Your task to perform on an android device: turn notification dots on Image 0: 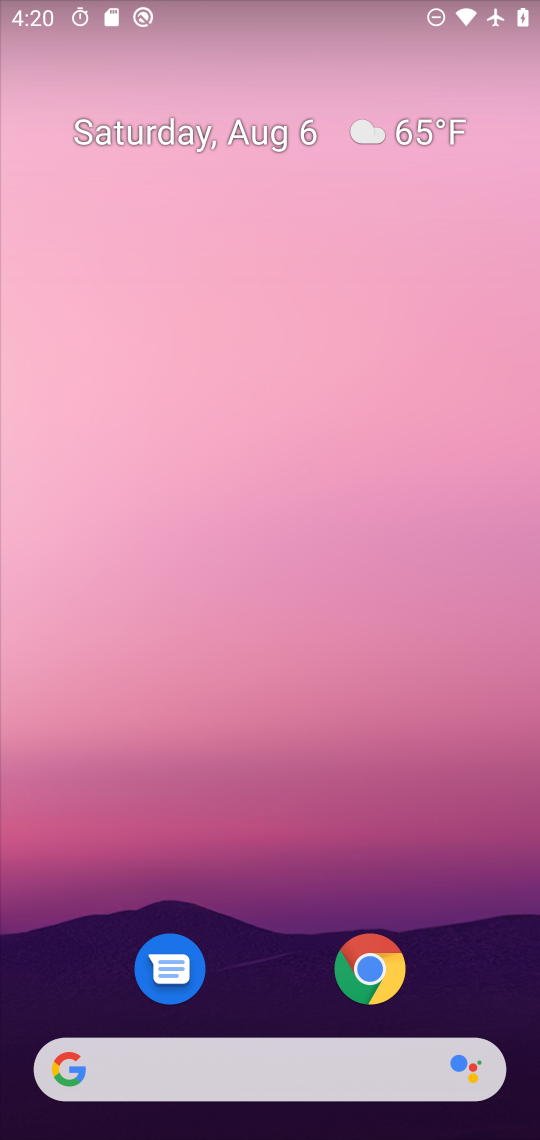
Step 0: press home button
Your task to perform on an android device: turn notification dots on Image 1: 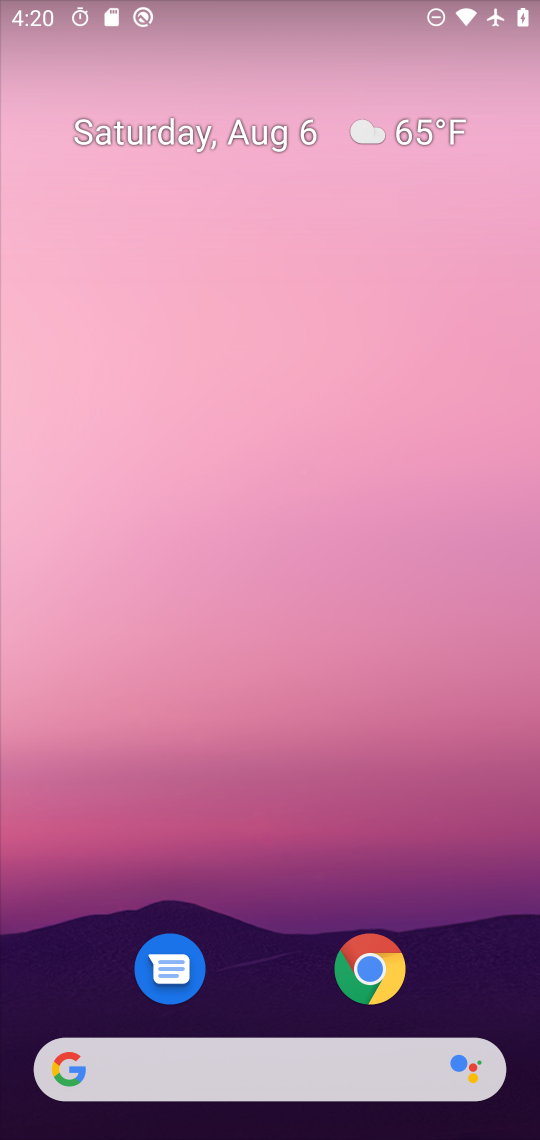
Step 1: drag from (449, 457) to (459, 67)
Your task to perform on an android device: turn notification dots on Image 2: 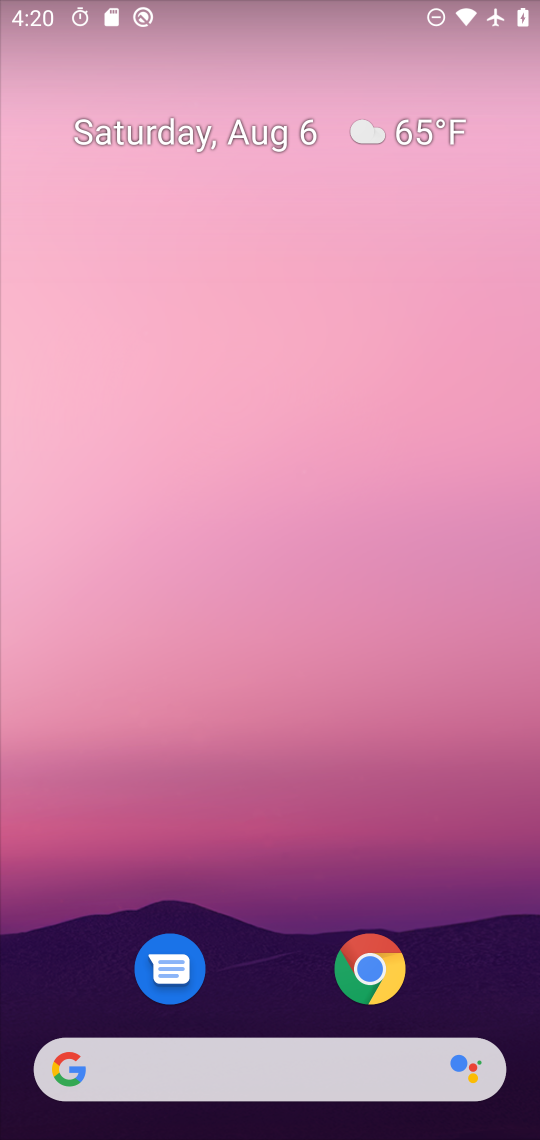
Step 2: drag from (275, 916) to (289, 57)
Your task to perform on an android device: turn notification dots on Image 3: 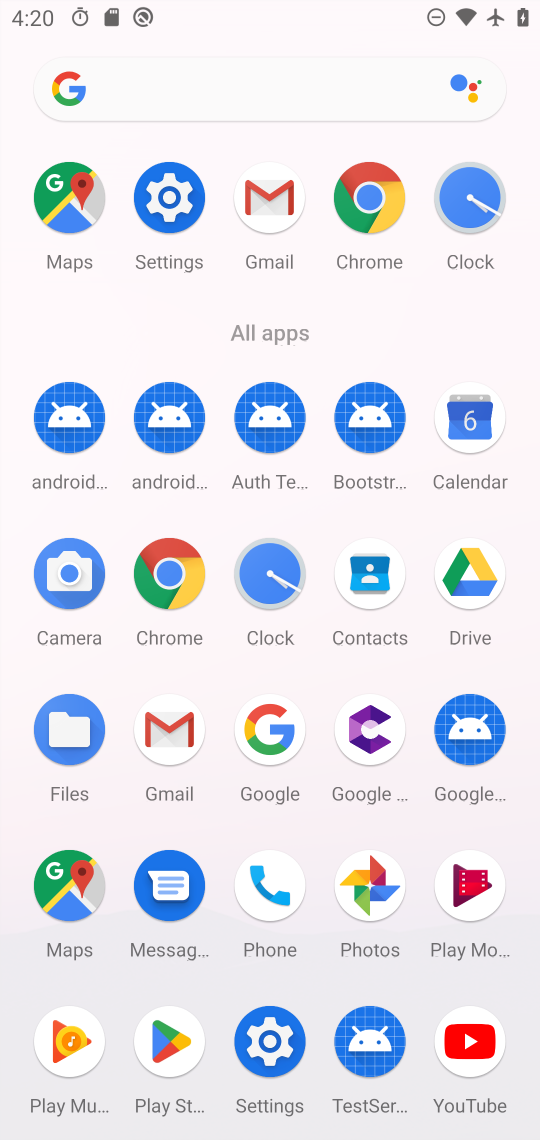
Step 3: click (168, 210)
Your task to perform on an android device: turn notification dots on Image 4: 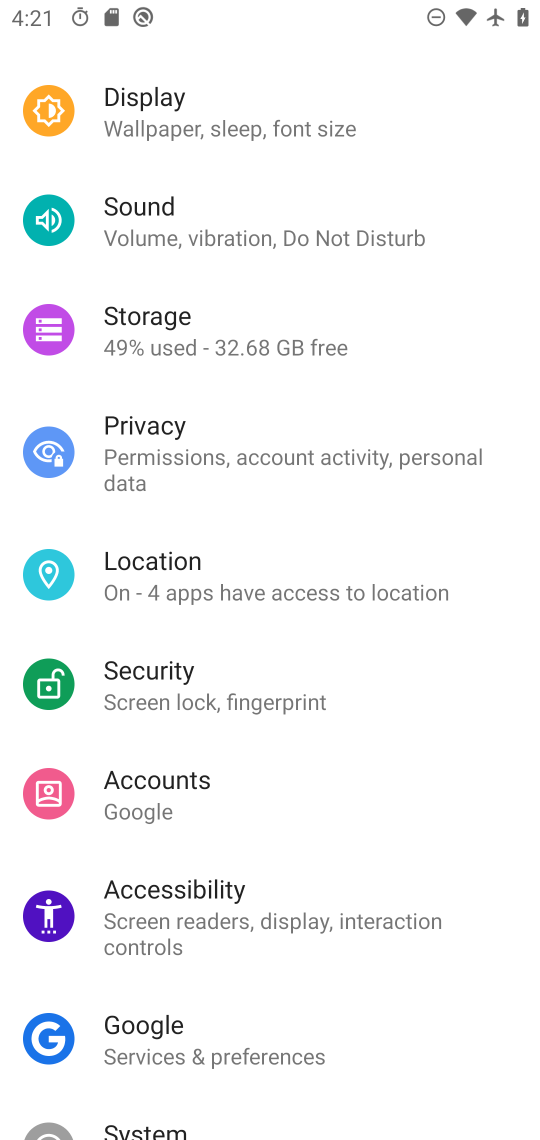
Step 4: drag from (210, 520) to (153, 1009)
Your task to perform on an android device: turn notification dots on Image 5: 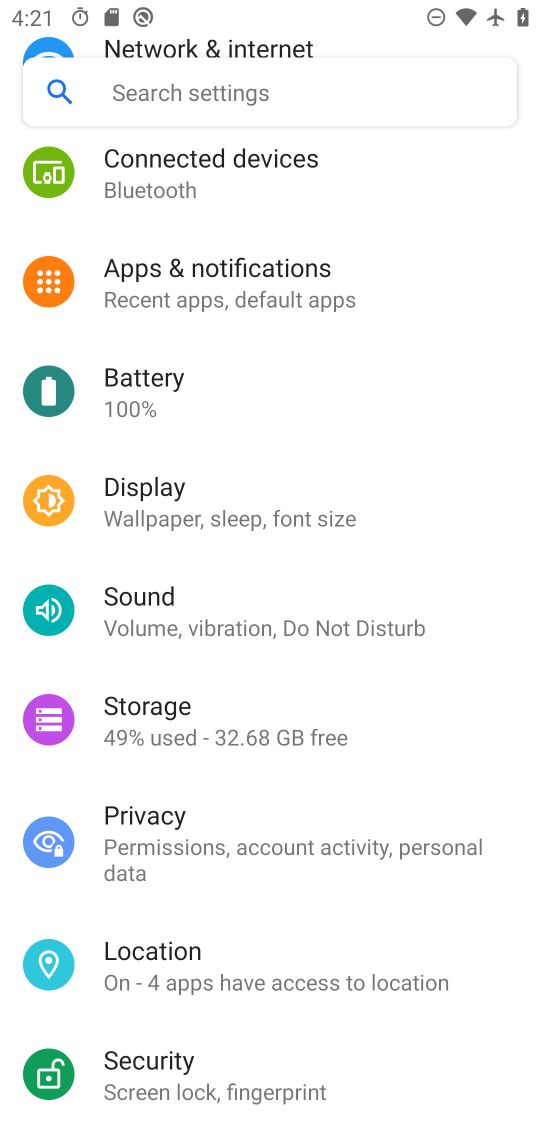
Step 5: click (183, 289)
Your task to perform on an android device: turn notification dots on Image 6: 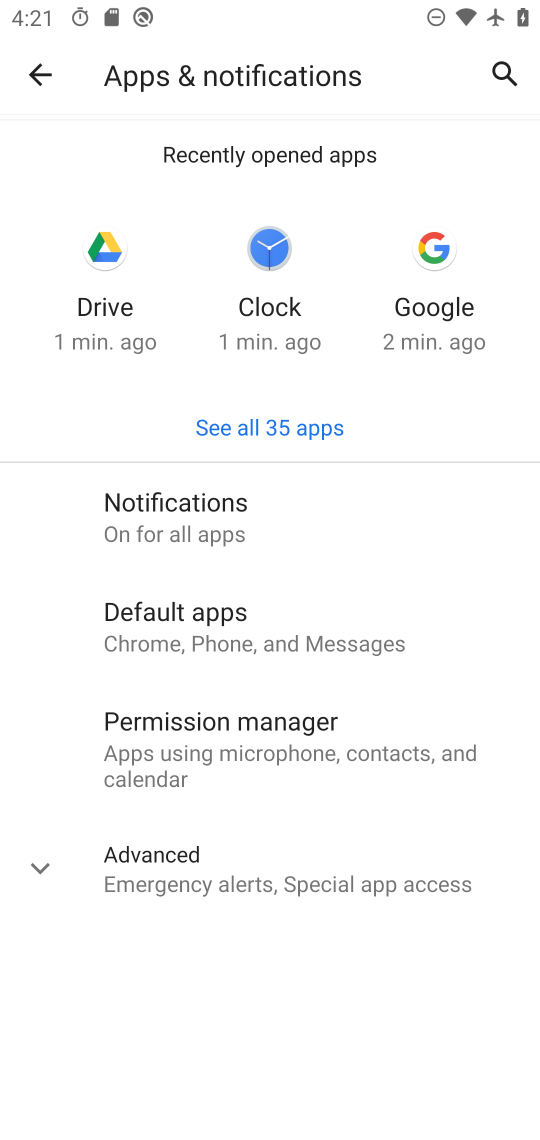
Step 6: click (56, 872)
Your task to perform on an android device: turn notification dots on Image 7: 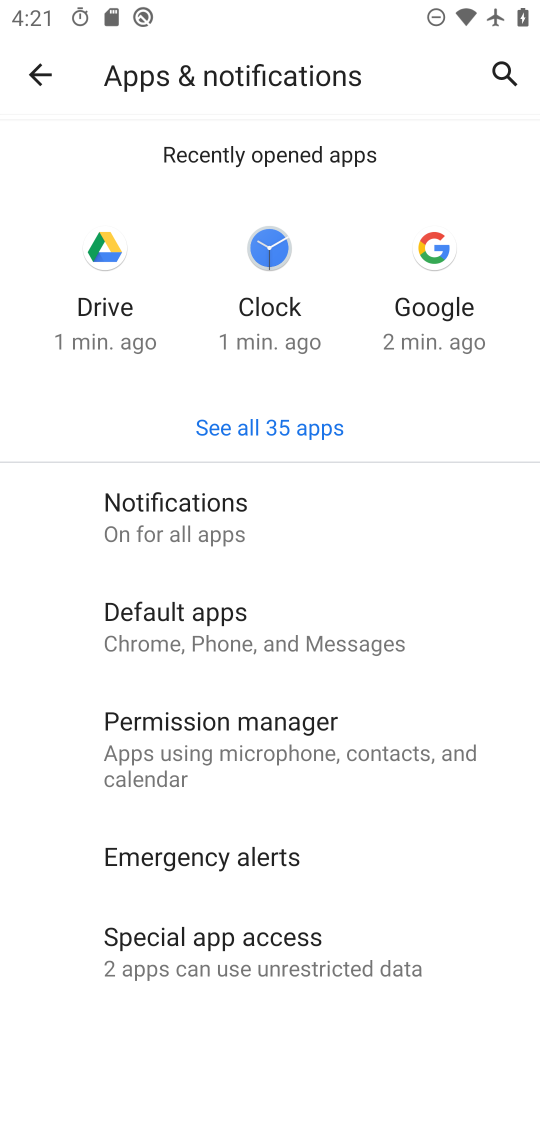
Step 7: click (224, 518)
Your task to perform on an android device: turn notification dots on Image 8: 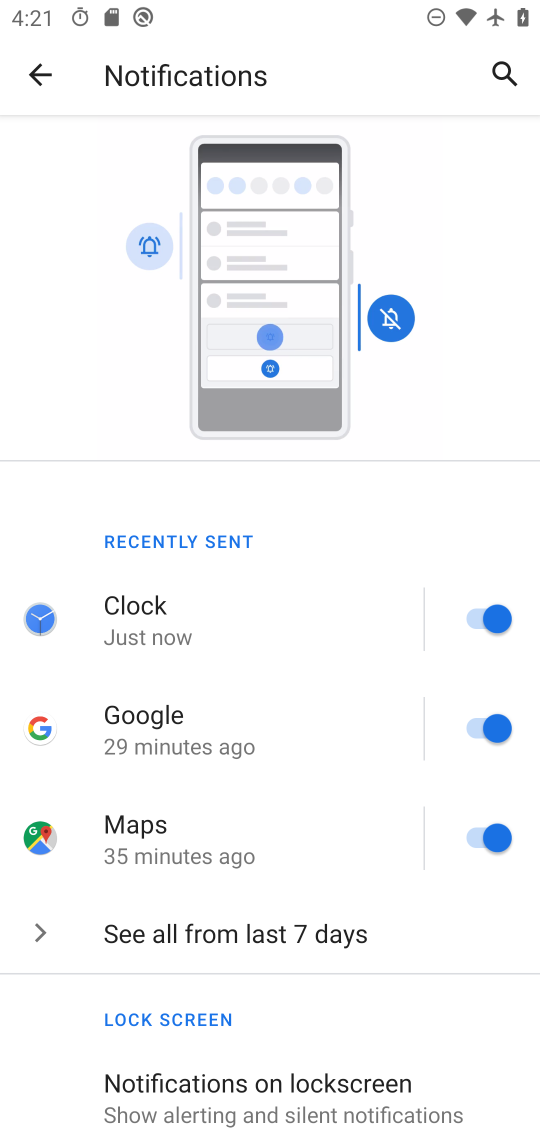
Step 8: drag from (385, 997) to (311, 373)
Your task to perform on an android device: turn notification dots on Image 9: 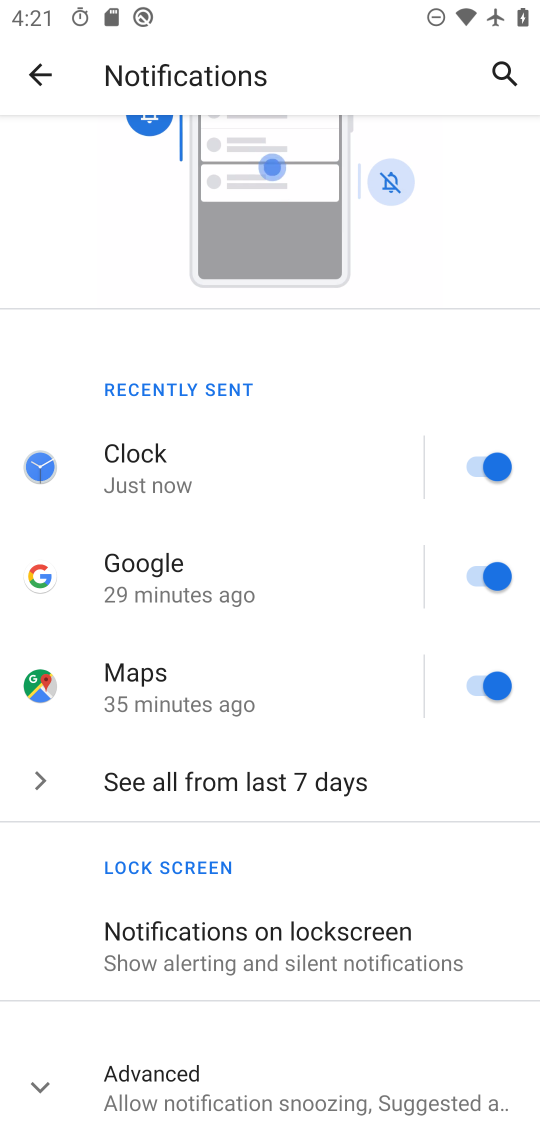
Step 9: drag from (307, 1043) to (295, 521)
Your task to perform on an android device: turn notification dots on Image 10: 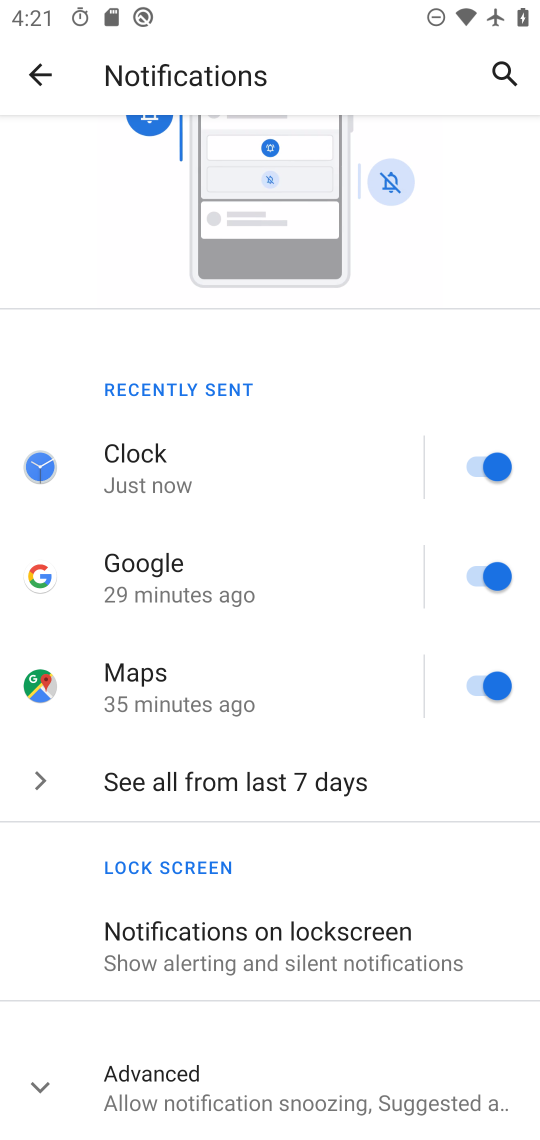
Step 10: click (26, 1076)
Your task to perform on an android device: turn notification dots on Image 11: 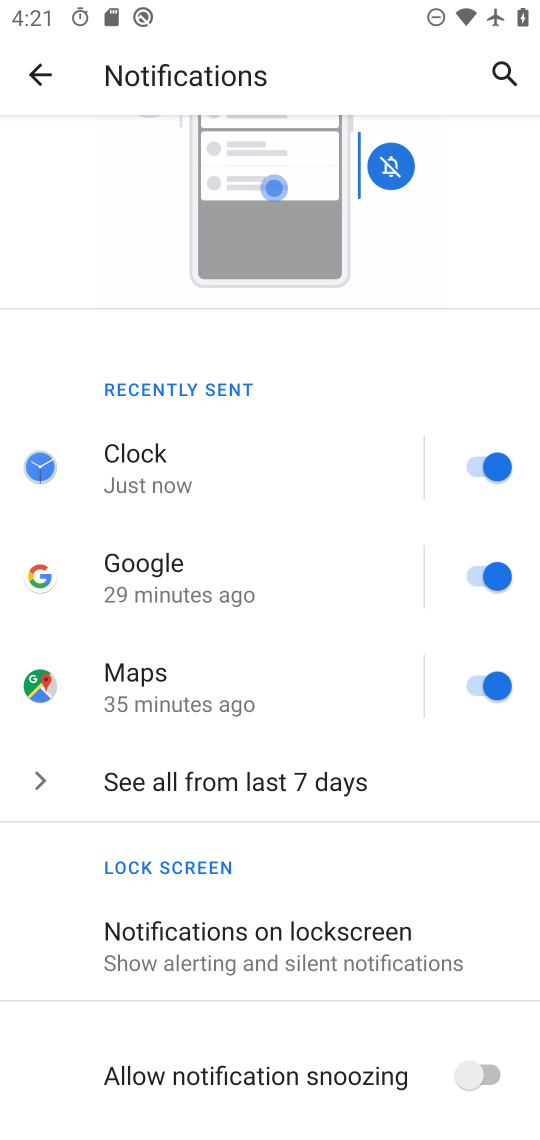
Step 11: task complete